Your task to perform on an android device: find snoozed emails in the gmail app Image 0: 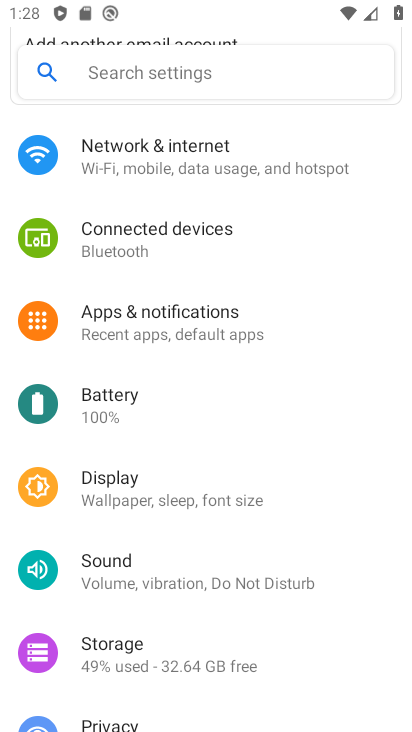
Step 0: press home button
Your task to perform on an android device: find snoozed emails in the gmail app Image 1: 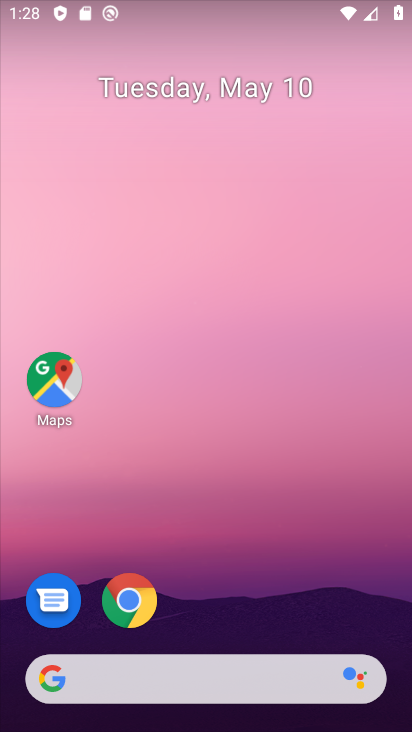
Step 1: drag from (195, 683) to (151, 155)
Your task to perform on an android device: find snoozed emails in the gmail app Image 2: 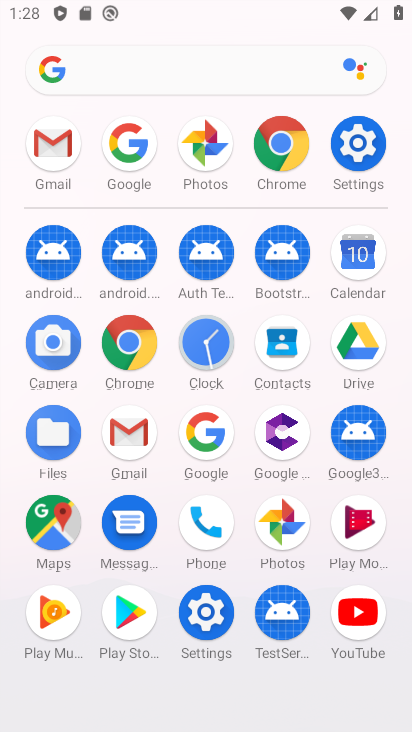
Step 2: click (143, 447)
Your task to perform on an android device: find snoozed emails in the gmail app Image 3: 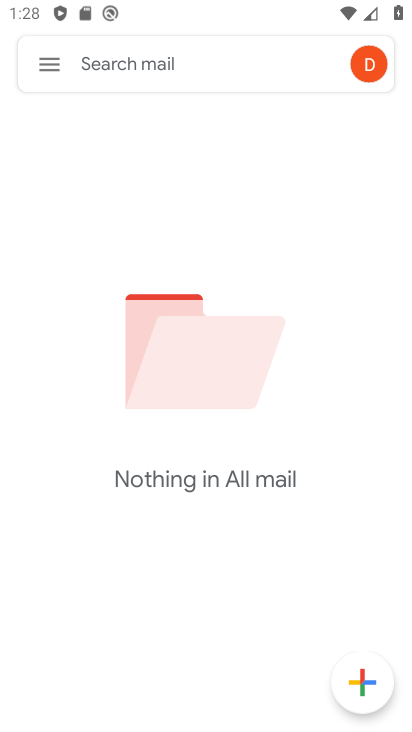
Step 3: click (59, 65)
Your task to perform on an android device: find snoozed emails in the gmail app Image 4: 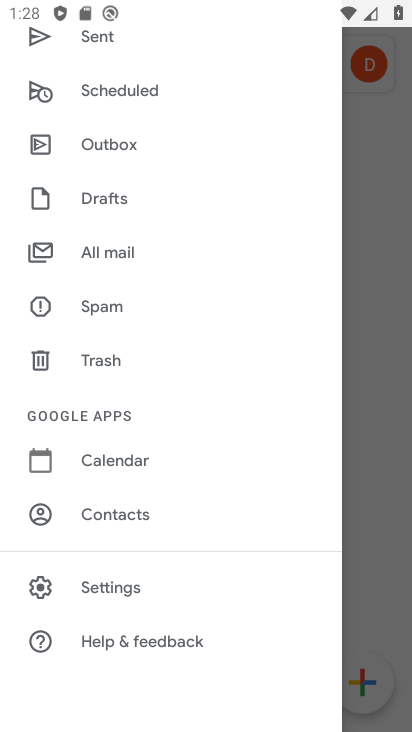
Step 4: drag from (130, 230) to (194, 386)
Your task to perform on an android device: find snoozed emails in the gmail app Image 5: 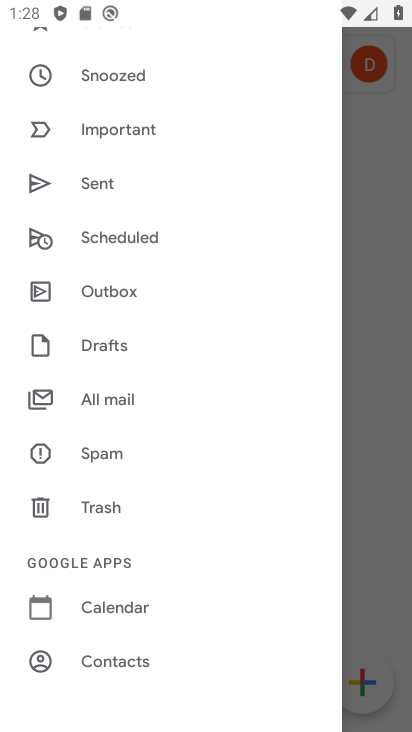
Step 5: click (143, 71)
Your task to perform on an android device: find snoozed emails in the gmail app Image 6: 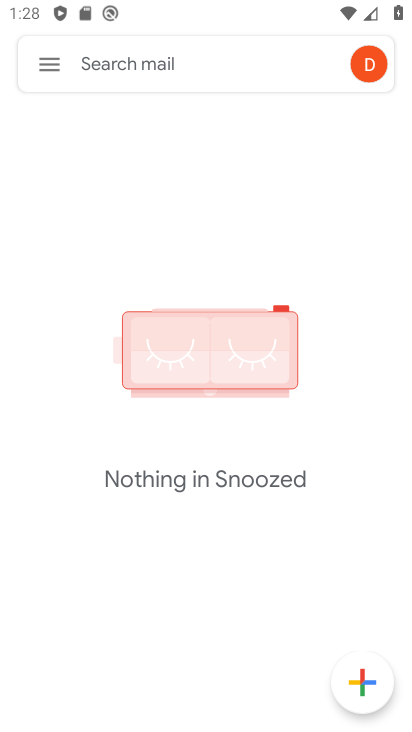
Step 6: task complete